Your task to perform on an android device: delete browsing data in the chrome app Image 0: 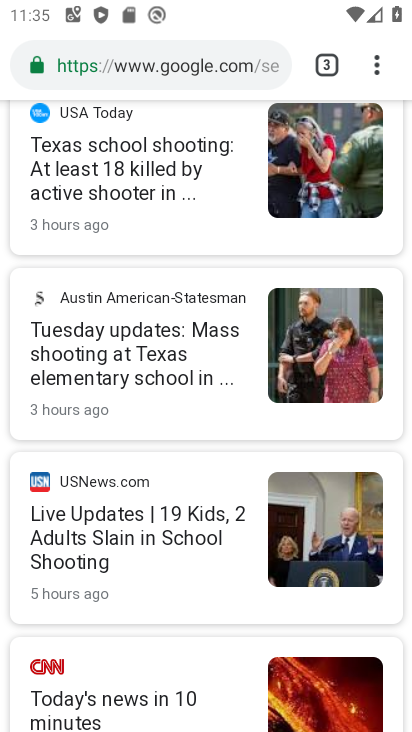
Step 0: click (370, 67)
Your task to perform on an android device: delete browsing data in the chrome app Image 1: 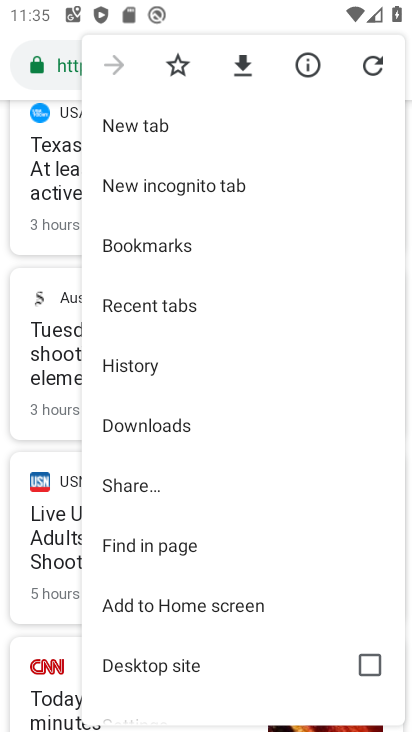
Step 1: click (138, 373)
Your task to perform on an android device: delete browsing data in the chrome app Image 2: 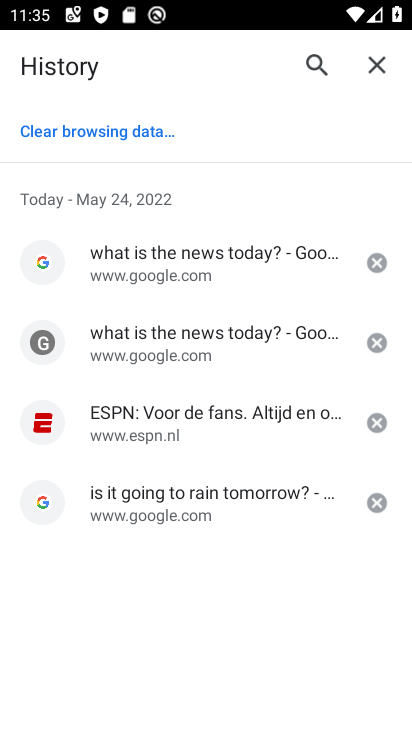
Step 2: click (109, 140)
Your task to perform on an android device: delete browsing data in the chrome app Image 3: 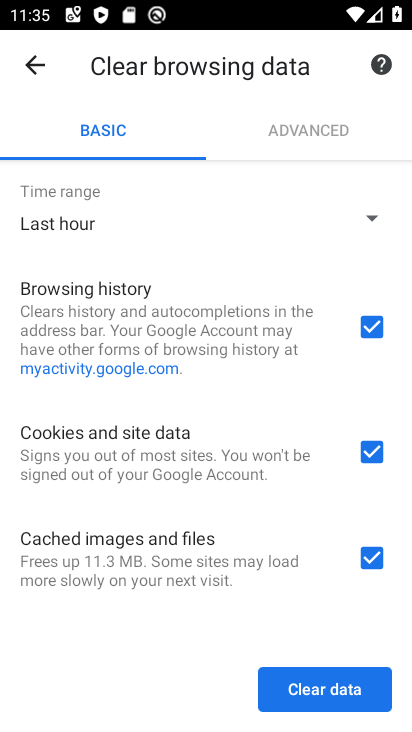
Step 3: click (357, 688)
Your task to perform on an android device: delete browsing data in the chrome app Image 4: 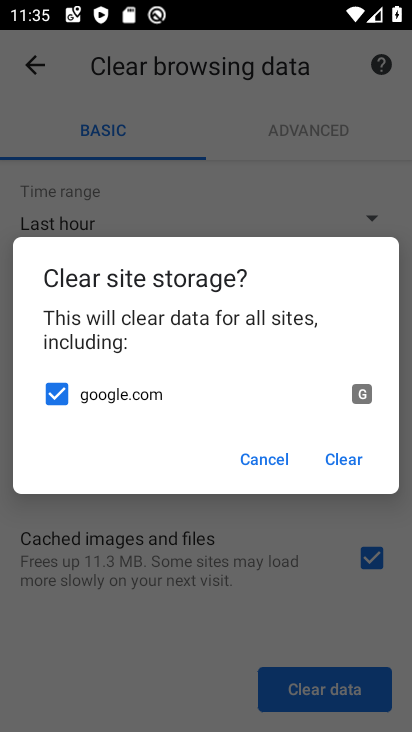
Step 4: click (346, 462)
Your task to perform on an android device: delete browsing data in the chrome app Image 5: 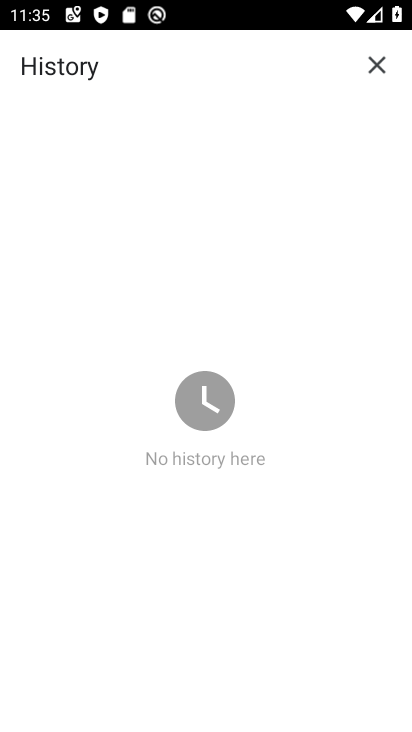
Step 5: task complete